Your task to perform on an android device: Open the web browser Image 0: 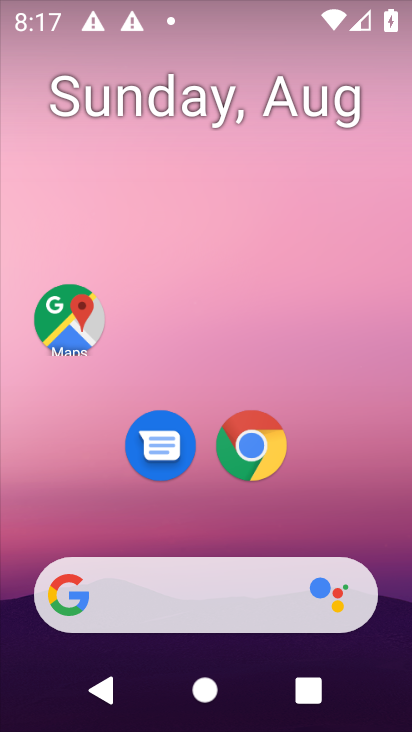
Step 0: press home button
Your task to perform on an android device: Open the web browser Image 1: 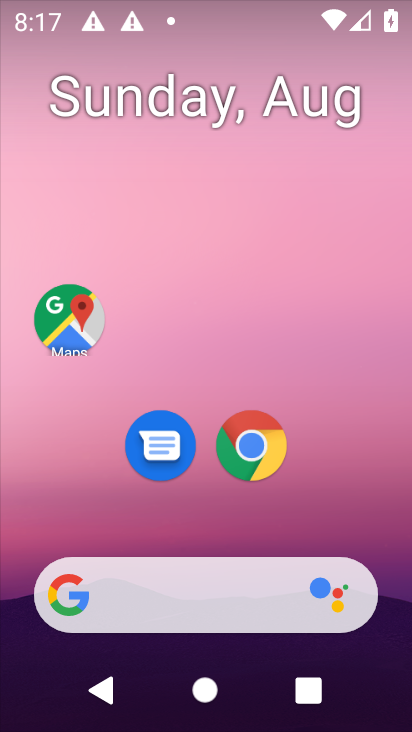
Step 1: click (252, 440)
Your task to perform on an android device: Open the web browser Image 2: 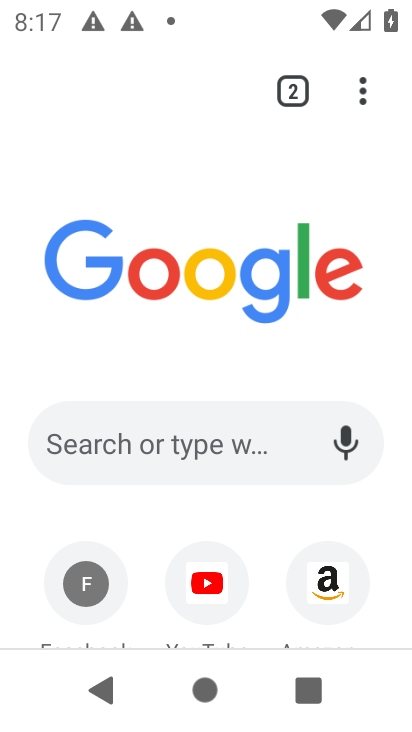
Step 2: task complete